Your task to perform on an android device: open the mobile data screen to see how much data has been used Image 0: 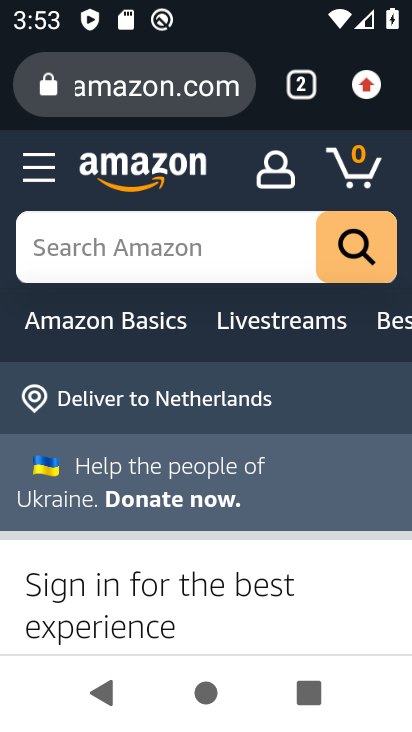
Step 0: press home button
Your task to perform on an android device: open the mobile data screen to see how much data has been used Image 1: 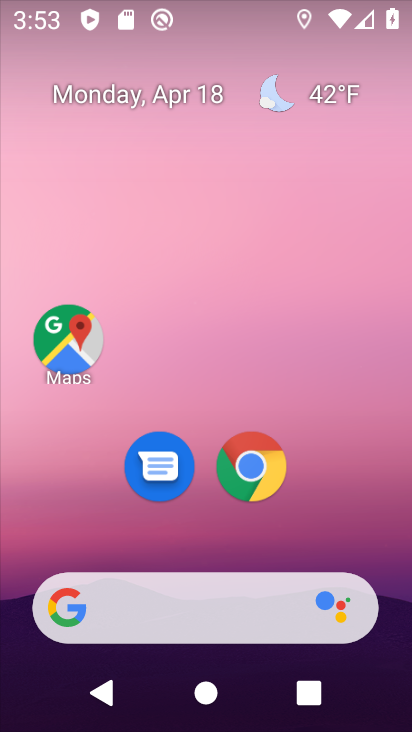
Step 1: drag from (377, 545) to (360, 133)
Your task to perform on an android device: open the mobile data screen to see how much data has been used Image 2: 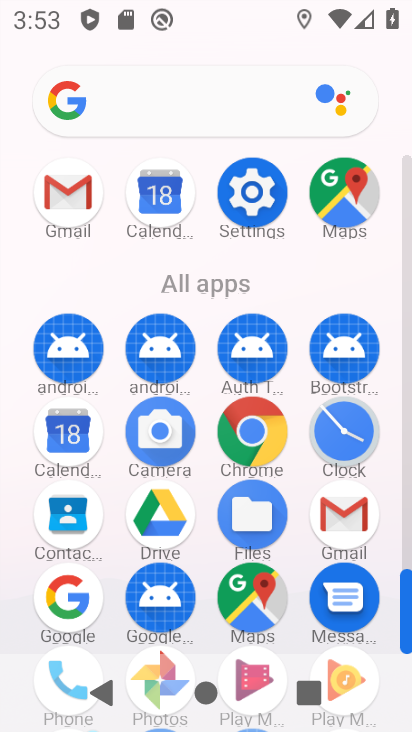
Step 2: drag from (406, 543) to (403, 484)
Your task to perform on an android device: open the mobile data screen to see how much data has been used Image 3: 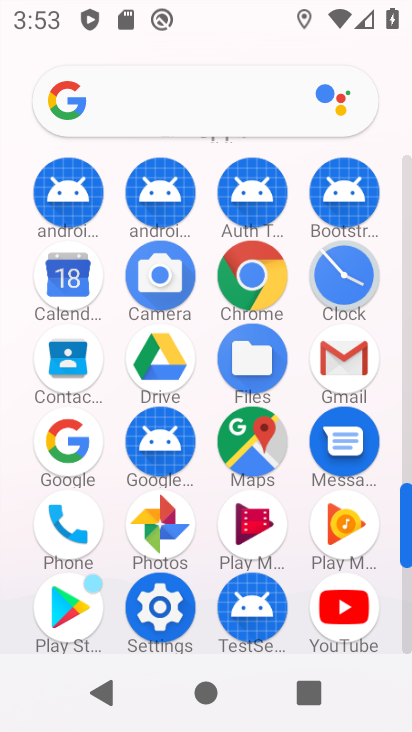
Step 3: click (159, 610)
Your task to perform on an android device: open the mobile data screen to see how much data has been used Image 4: 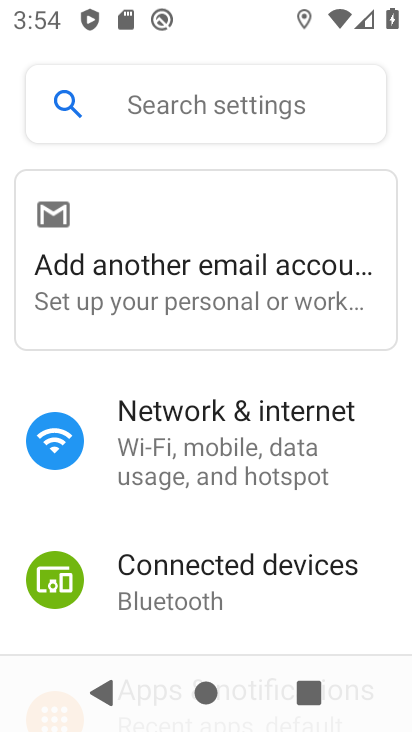
Step 4: click (192, 438)
Your task to perform on an android device: open the mobile data screen to see how much data has been used Image 5: 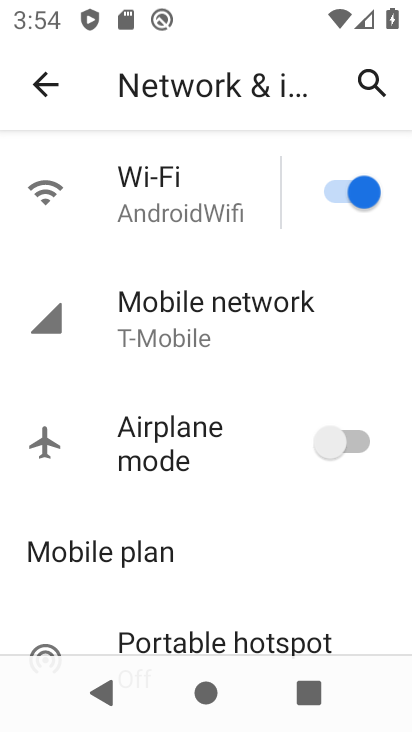
Step 5: click (155, 306)
Your task to perform on an android device: open the mobile data screen to see how much data has been used Image 6: 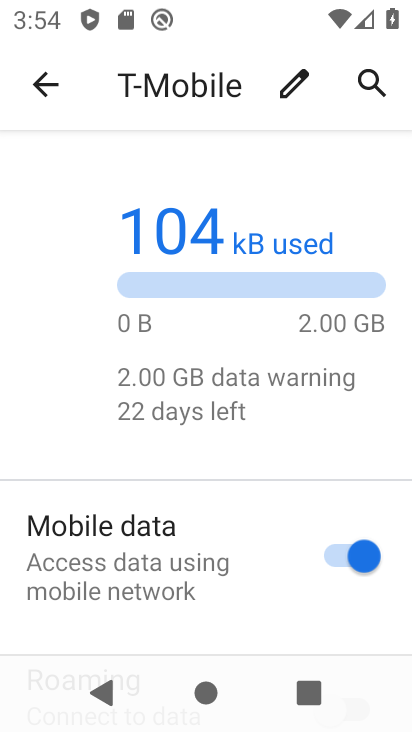
Step 6: task complete